Your task to perform on an android device: Open settings on Google Maps Image 0: 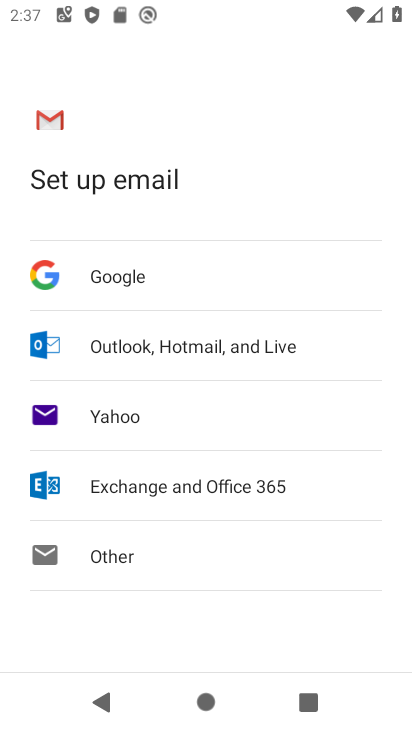
Step 0: press back button
Your task to perform on an android device: Open settings on Google Maps Image 1: 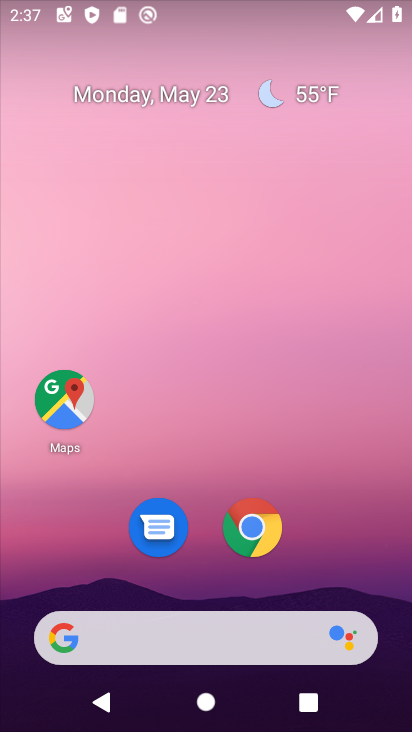
Step 1: drag from (355, 494) to (270, 39)
Your task to perform on an android device: Open settings on Google Maps Image 2: 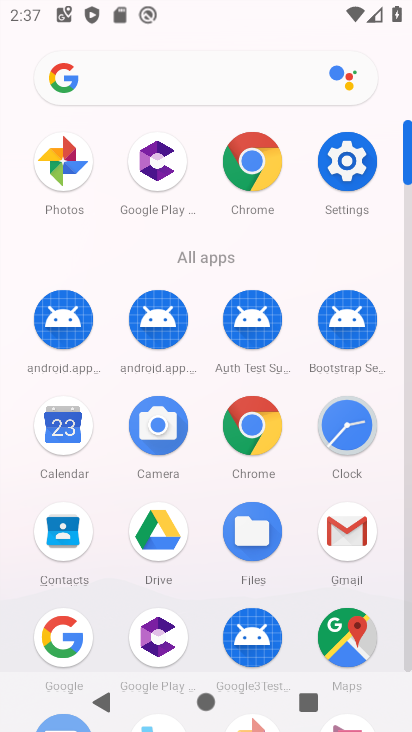
Step 2: drag from (17, 609) to (17, 250)
Your task to perform on an android device: Open settings on Google Maps Image 3: 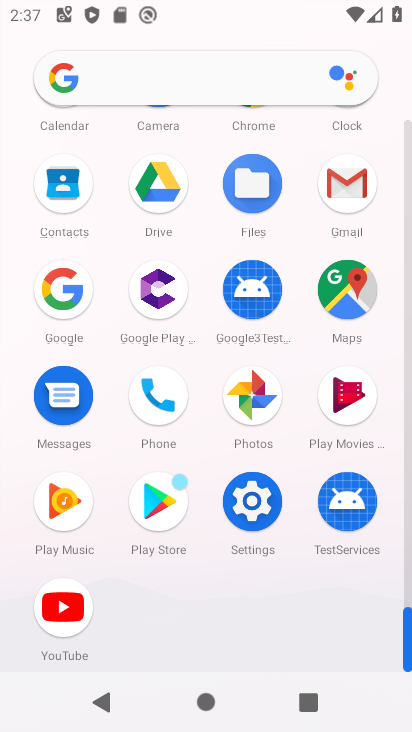
Step 3: click (348, 296)
Your task to perform on an android device: Open settings on Google Maps Image 4: 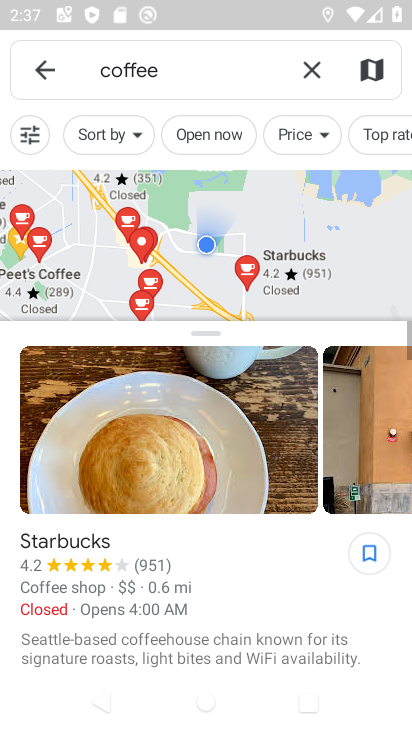
Step 4: click (303, 67)
Your task to perform on an android device: Open settings on Google Maps Image 5: 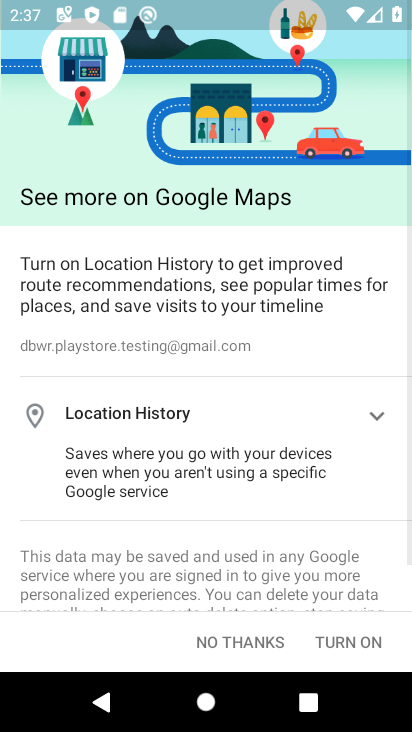
Step 5: click (359, 638)
Your task to perform on an android device: Open settings on Google Maps Image 6: 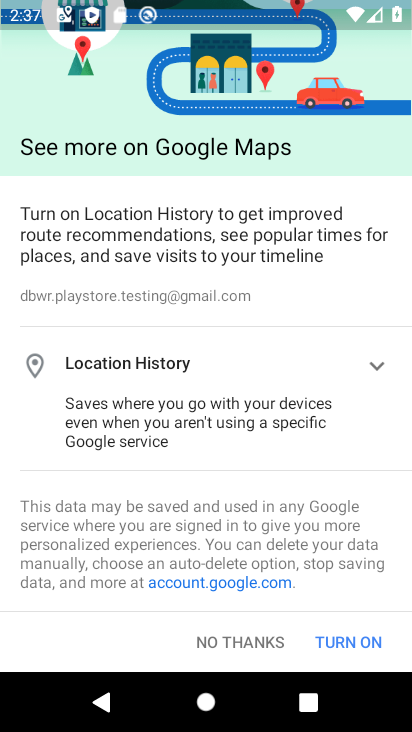
Step 6: click (354, 640)
Your task to perform on an android device: Open settings on Google Maps Image 7: 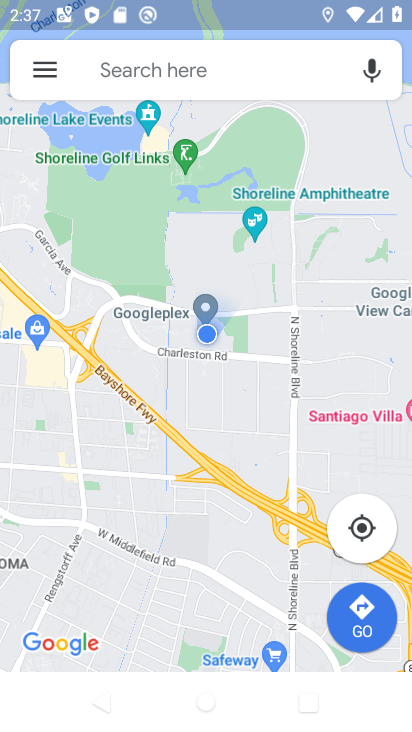
Step 7: click (41, 72)
Your task to perform on an android device: Open settings on Google Maps Image 8: 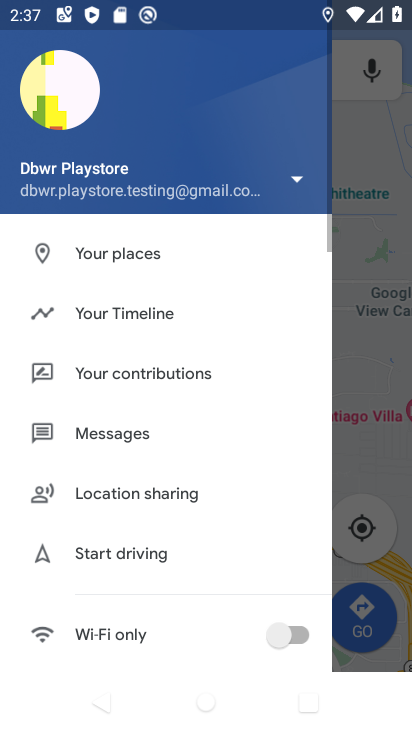
Step 8: drag from (235, 602) to (222, 186)
Your task to perform on an android device: Open settings on Google Maps Image 9: 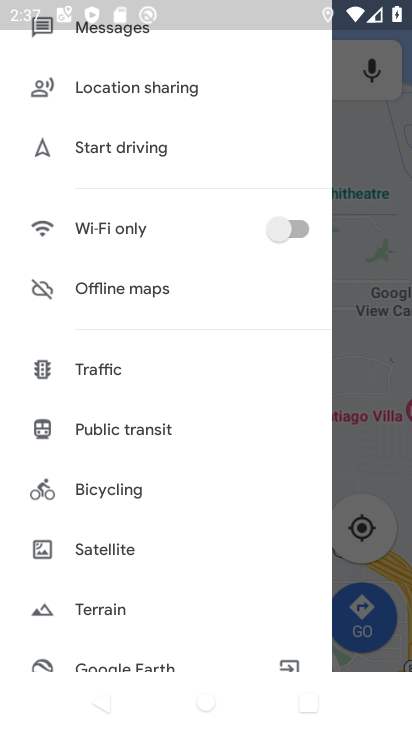
Step 9: drag from (157, 605) to (185, 99)
Your task to perform on an android device: Open settings on Google Maps Image 10: 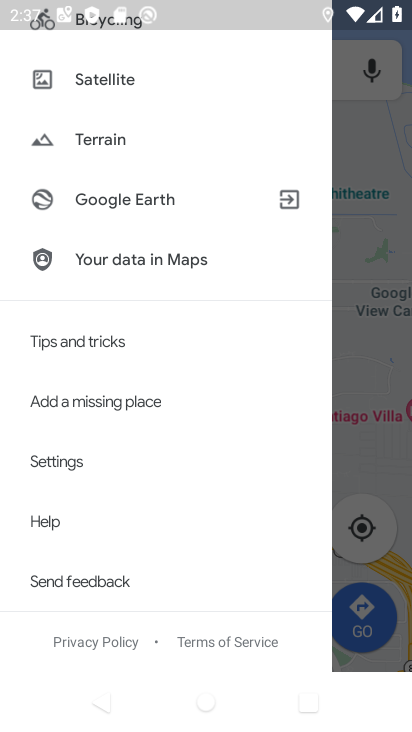
Step 10: click (63, 460)
Your task to perform on an android device: Open settings on Google Maps Image 11: 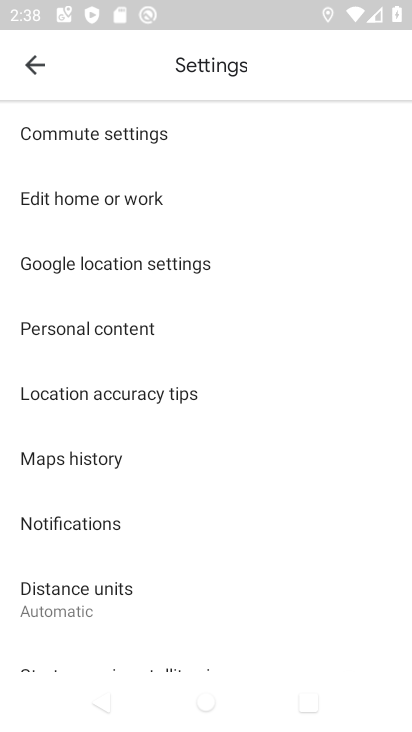
Step 11: task complete